Your task to perform on an android device: Find coffee shops on Maps Image 0: 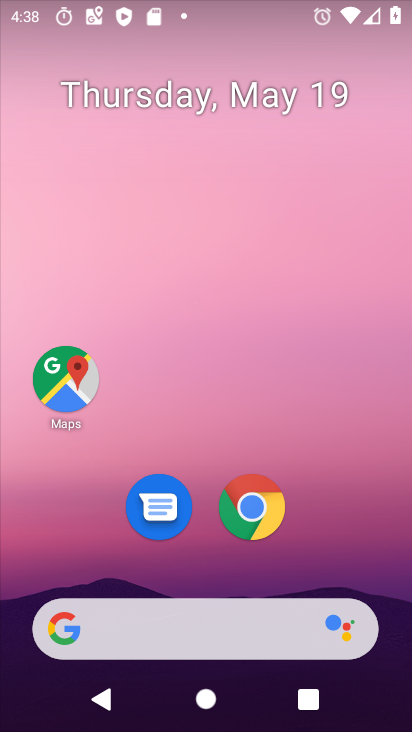
Step 0: click (73, 370)
Your task to perform on an android device: Find coffee shops on Maps Image 1: 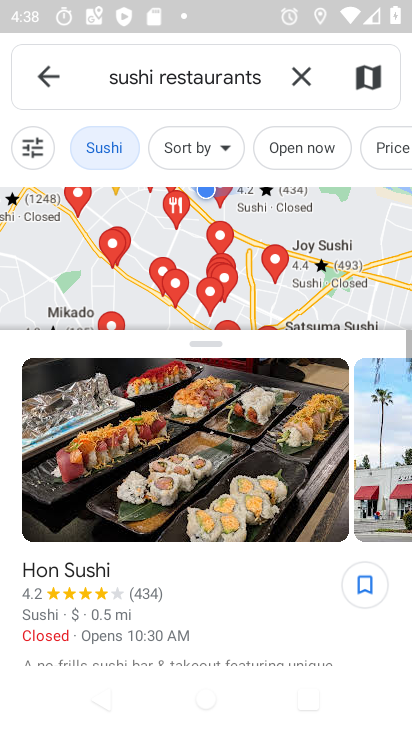
Step 1: click (293, 76)
Your task to perform on an android device: Find coffee shops on Maps Image 2: 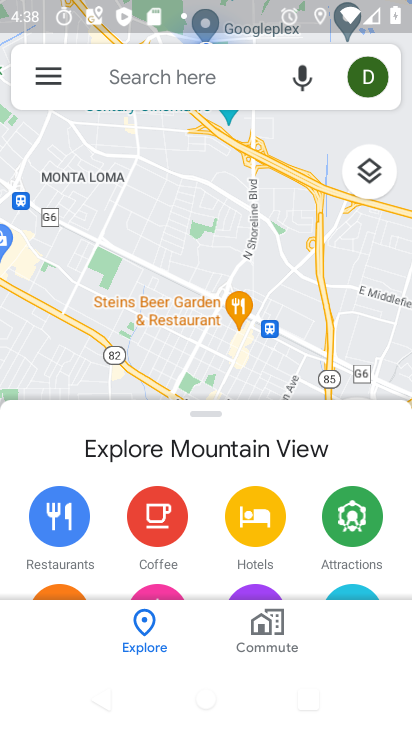
Step 2: click (168, 78)
Your task to perform on an android device: Find coffee shops on Maps Image 3: 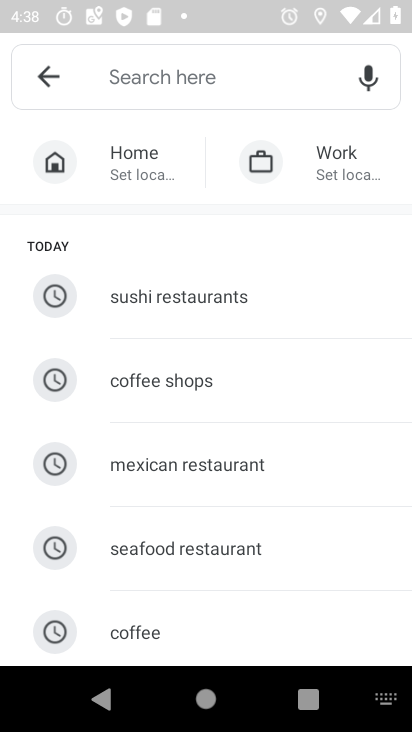
Step 3: type "coffee shops"
Your task to perform on an android device: Find coffee shops on Maps Image 4: 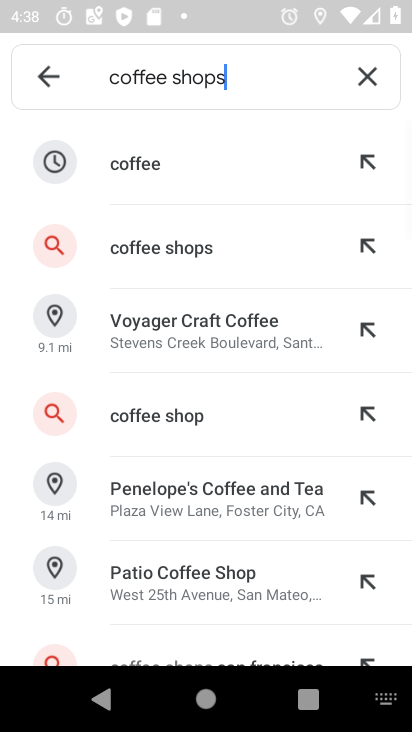
Step 4: click (186, 243)
Your task to perform on an android device: Find coffee shops on Maps Image 5: 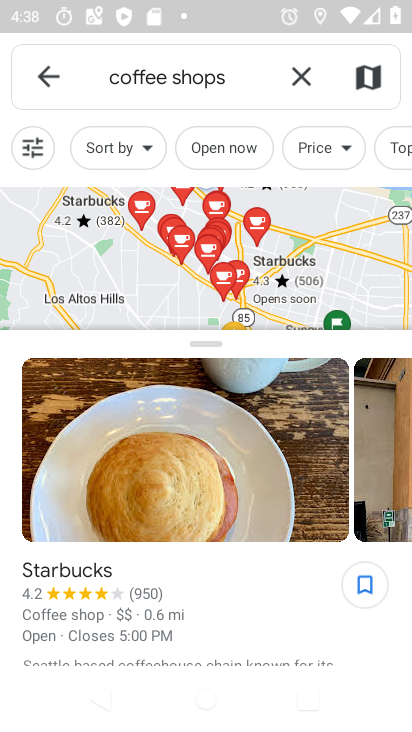
Step 5: task complete